Your task to perform on an android device: Open accessibility settings Image 0: 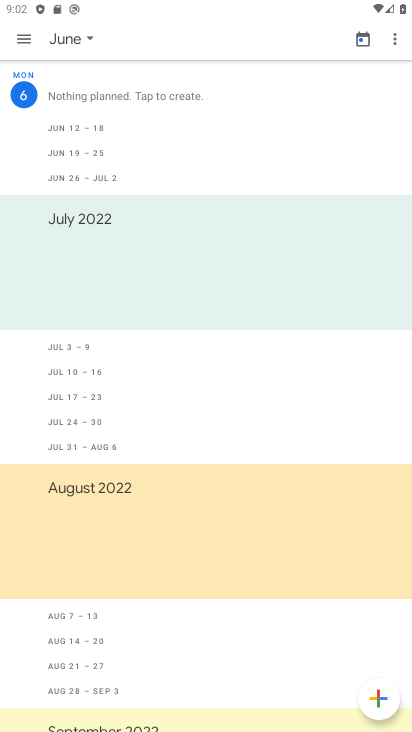
Step 0: press home button
Your task to perform on an android device: Open accessibility settings Image 1: 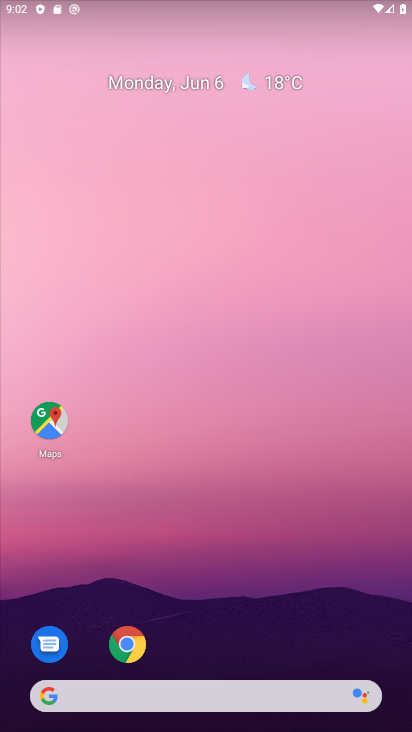
Step 1: drag from (281, 603) to (271, 296)
Your task to perform on an android device: Open accessibility settings Image 2: 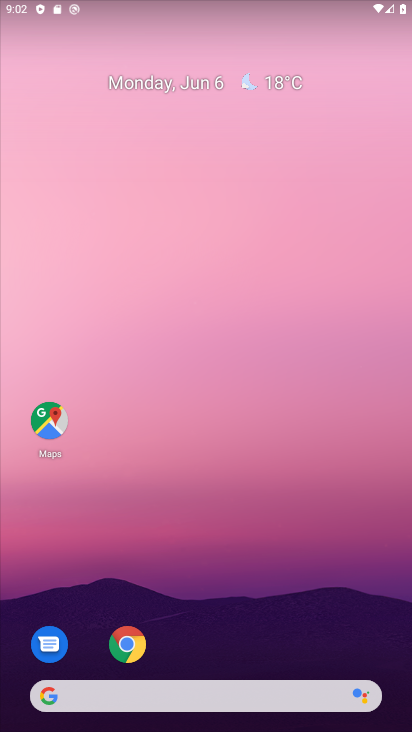
Step 2: drag from (304, 586) to (290, 189)
Your task to perform on an android device: Open accessibility settings Image 3: 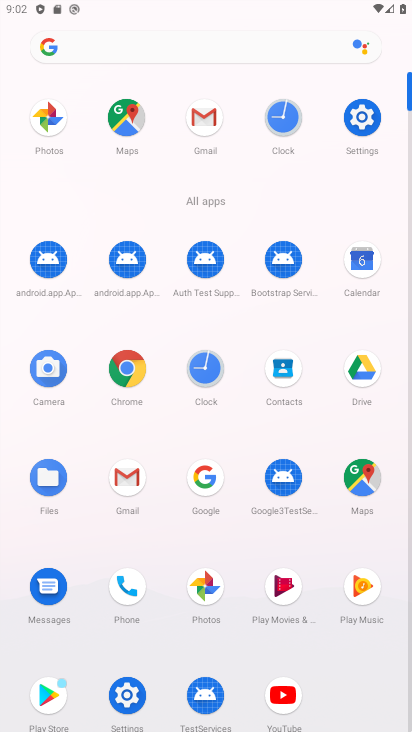
Step 3: click (136, 701)
Your task to perform on an android device: Open accessibility settings Image 4: 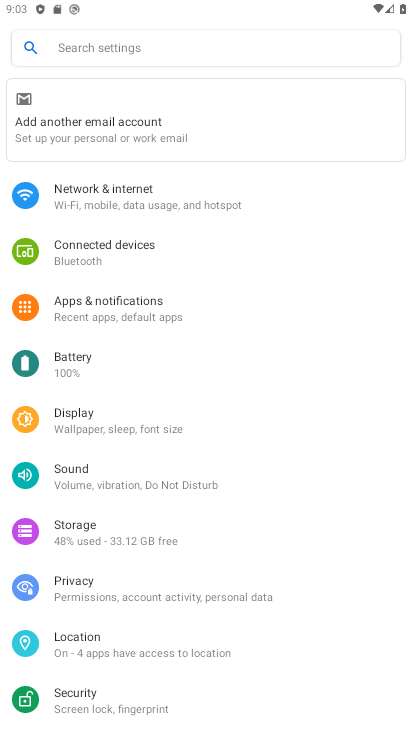
Step 4: drag from (172, 678) to (202, 371)
Your task to perform on an android device: Open accessibility settings Image 5: 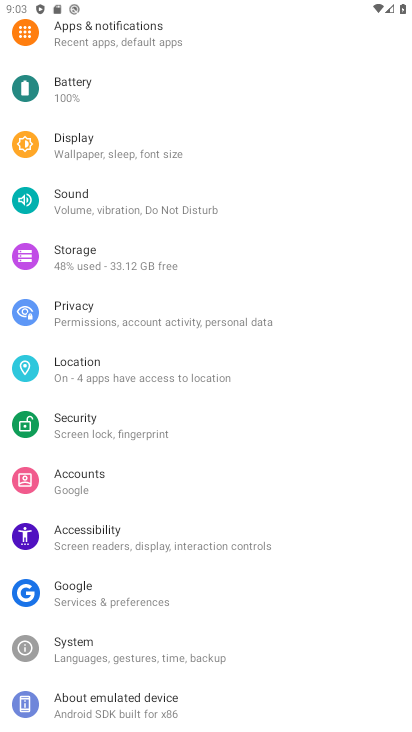
Step 5: click (134, 534)
Your task to perform on an android device: Open accessibility settings Image 6: 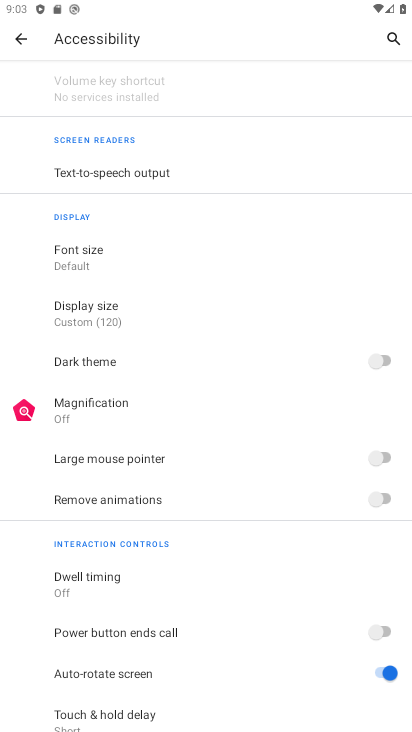
Step 6: task complete